Your task to perform on an android device: show emergency info Image 0: 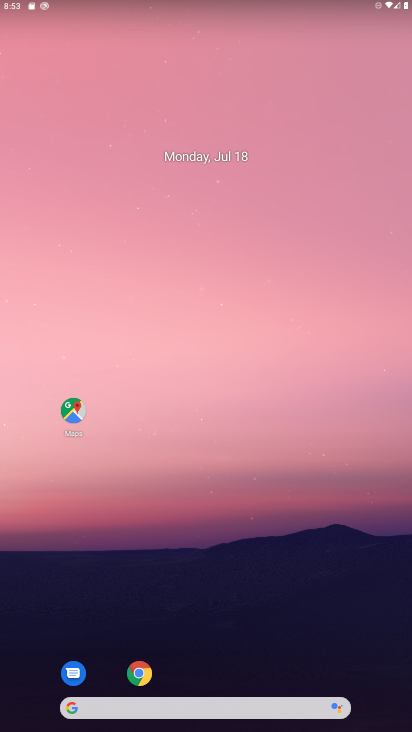
Step 0: press home button
Your task to perform on an android device: show emergency info Image 1: 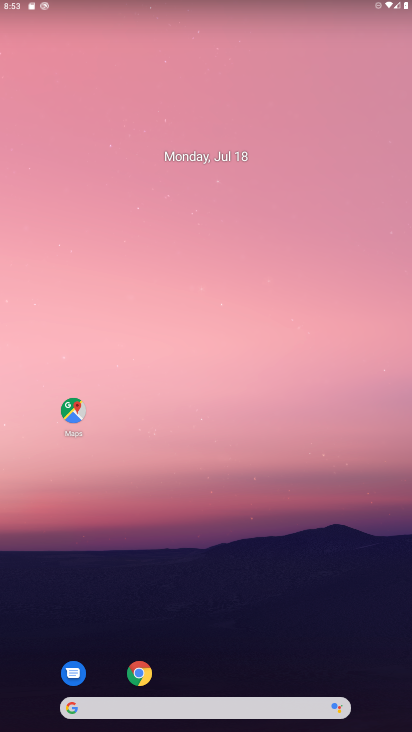
Step 1: drag from (271, 672) to (235, 57)
Your task to perform on an android device: show emergency info Image 2: 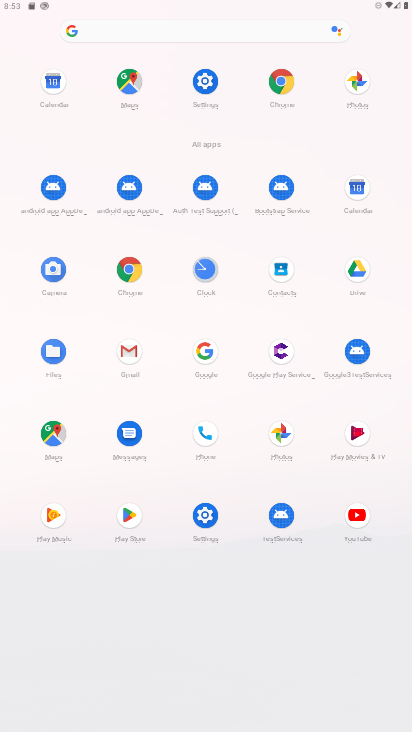
Step 2: click (204, 79)
Your task to perform on an android device: show emergency info Image 3: 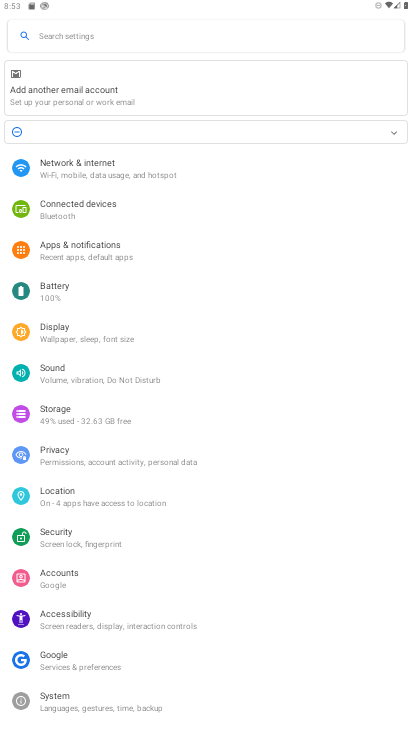
Step 3: drag from (241, 669) to (261, 204)
Your task to perform on an android device: show emergency info Image 4: 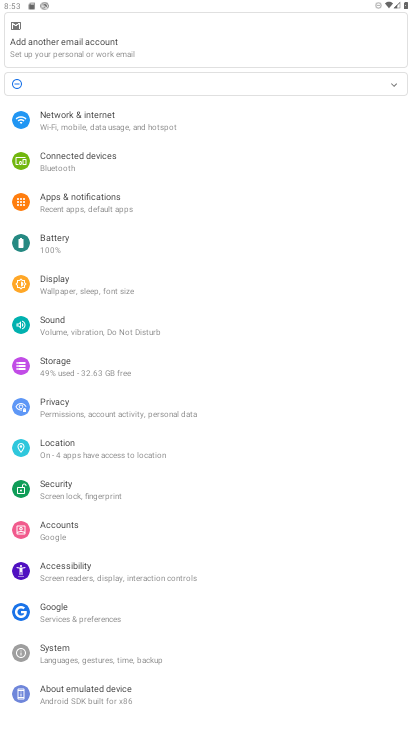
Step 4: click (80, 691)
Your task to perform on an android device: show emergency info Image 5: 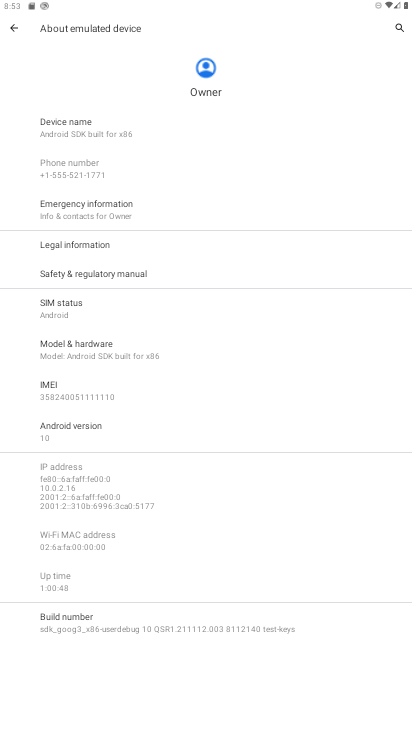
Step 5: click (100, 209)
Your task to perform on an android device: show emergency info Image 6: 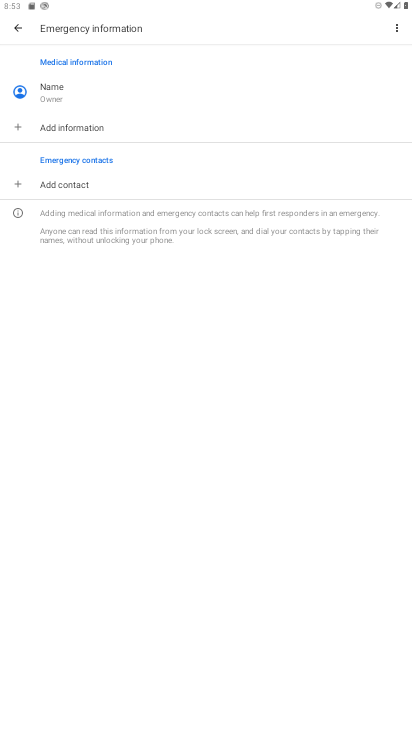
Step 6: task complete